Your task to perform on an android device: Is it going to rain today? Image 0: 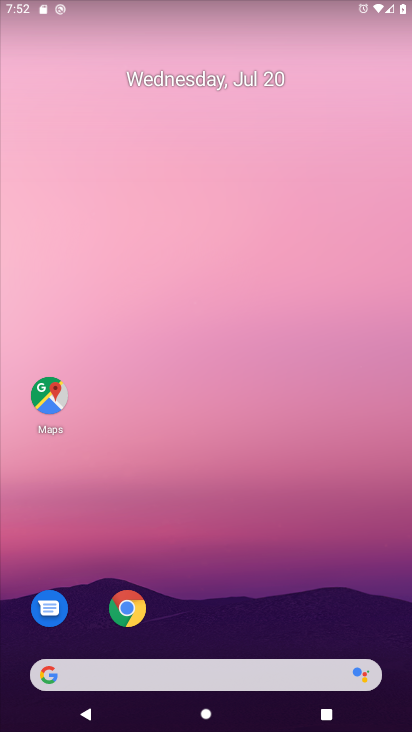
Step 0: drag from (264, 567) to (250, 235)
Your task to perform on an android device: Is it going to rain today? Image 1: 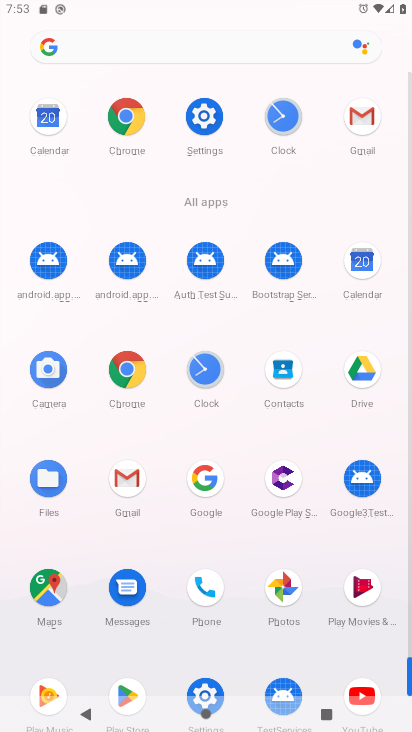
Step 1: click (133, 113)
Your task to perform on an android device: Is it going to rain today? Image 2: 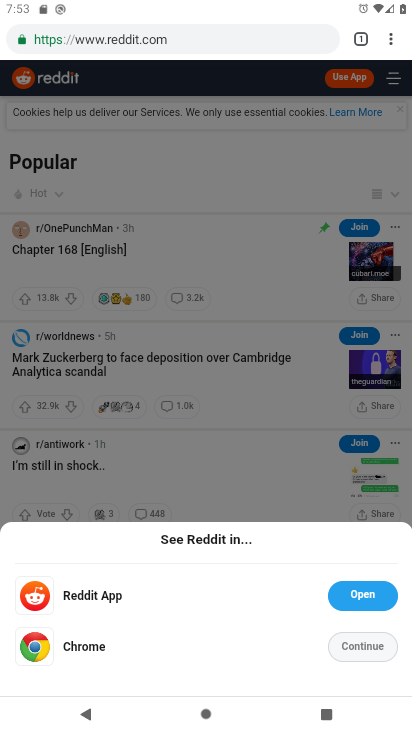
Step 2: click (397, 27)
Your task to perform on an android device: Is it going to rain today? Image 3: 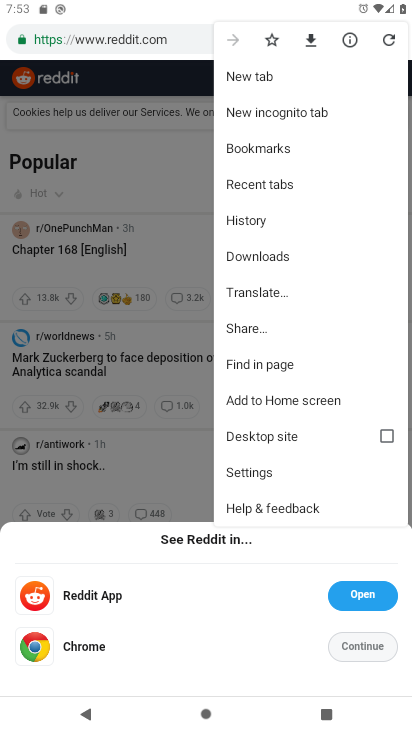
Step 3: click (275, 70)
Your task to perform on an android device: Is it going to rain today? Image 4: 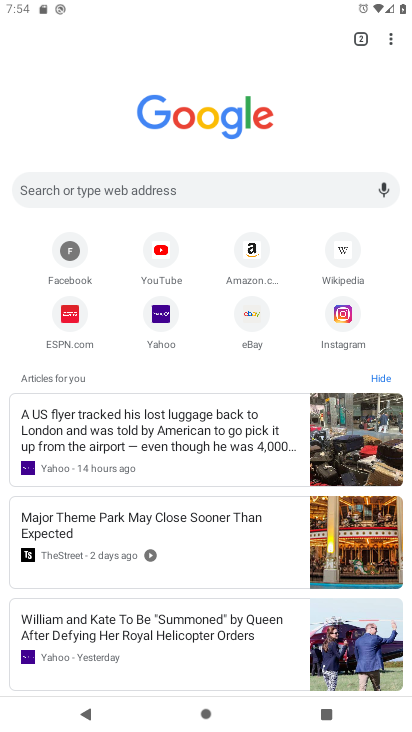
Step 4: click (155, 186)
Your task to perform on an android device: Is it going to rain today? Image 5: 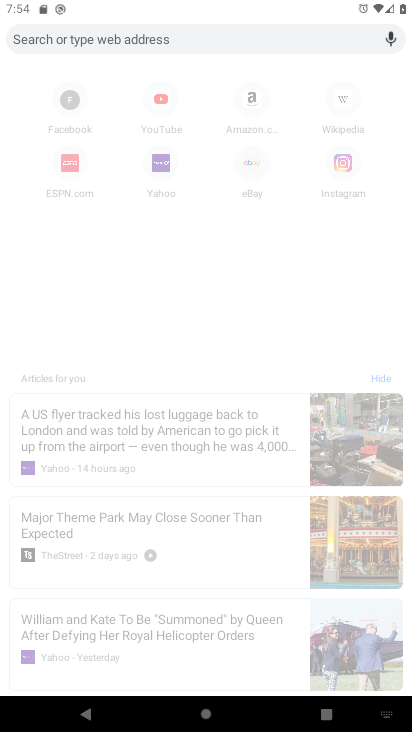
Step 5: type "Is it going to rain today "
Your task to perform on an android device: Is it going to rain today? Image 6: 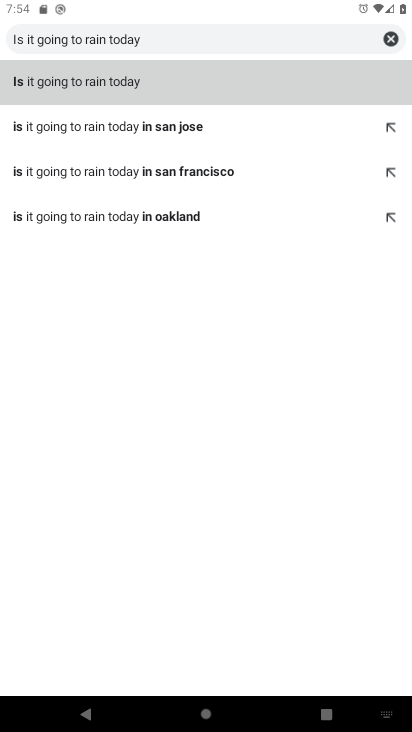
Step 6: click (133, 71)
Your task to perform on an android device: Is it going to rain today? Image 7: 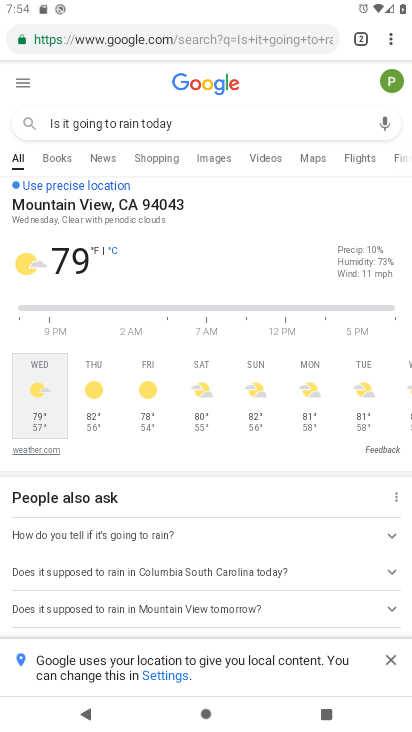
Step 7: task complete